Your task to perform on an android device: Clear the cart on newegg. Image 0: 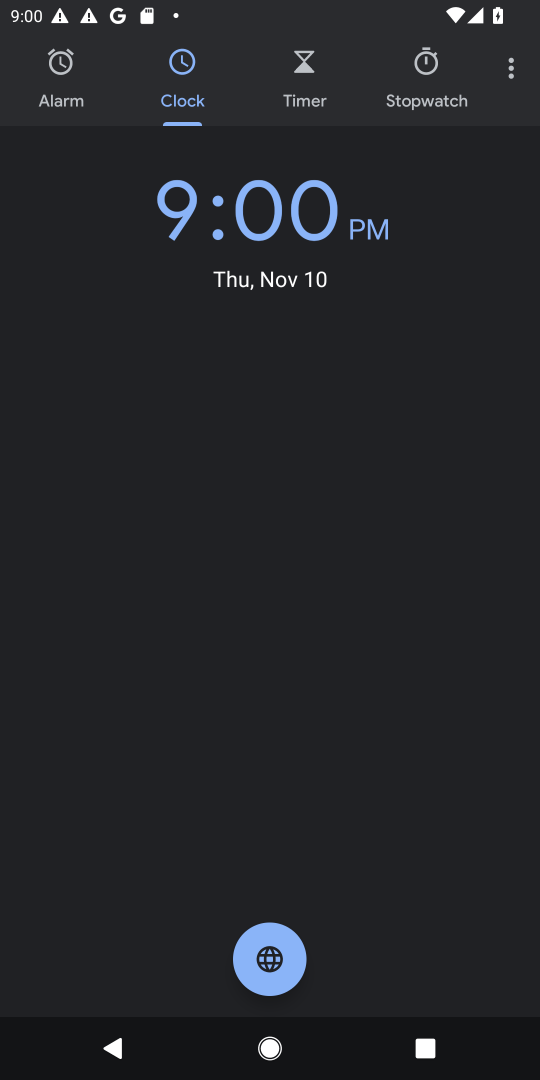
Step 0: press home button
Your task to perform on an android device: Clear the cart on newegg. Image 1: 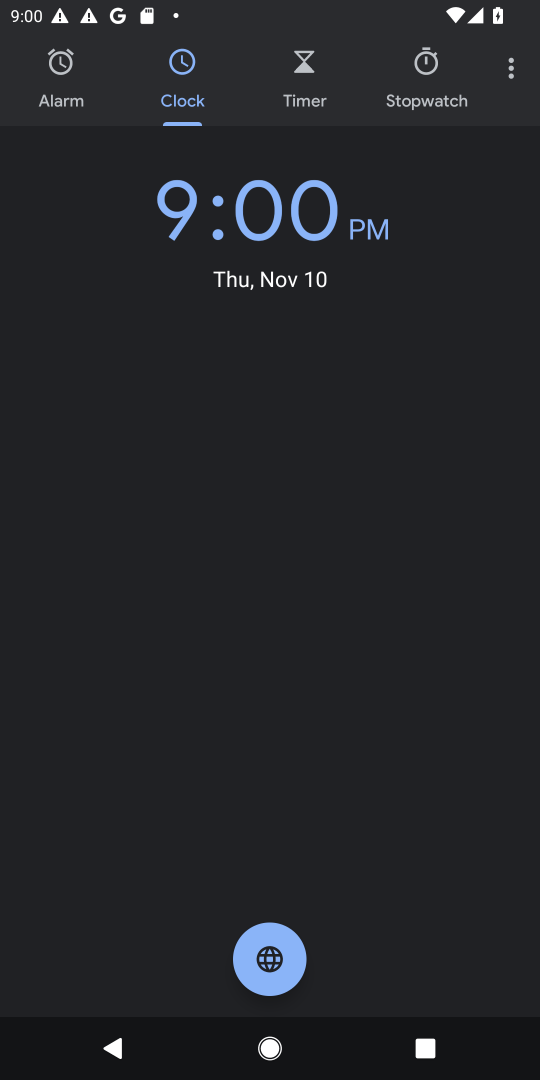
Step 1: press home button
Your task to perform on an android device: Clear the cart on newegg. Image 2: 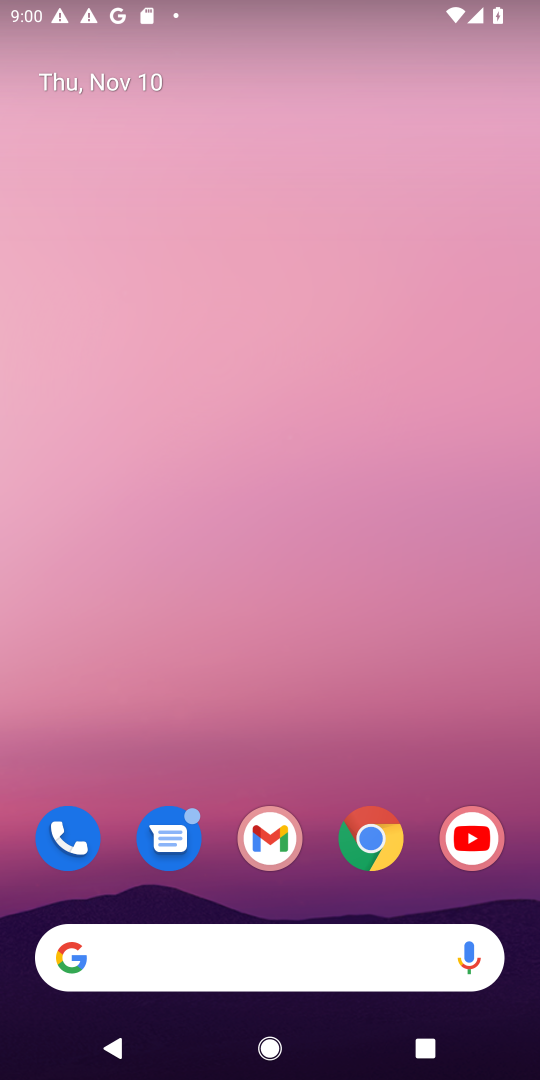
Step 2: drag from (333, 921) to (251, 156)
Your task to perform on an android device: Clear the cart on newegg. Image 3: 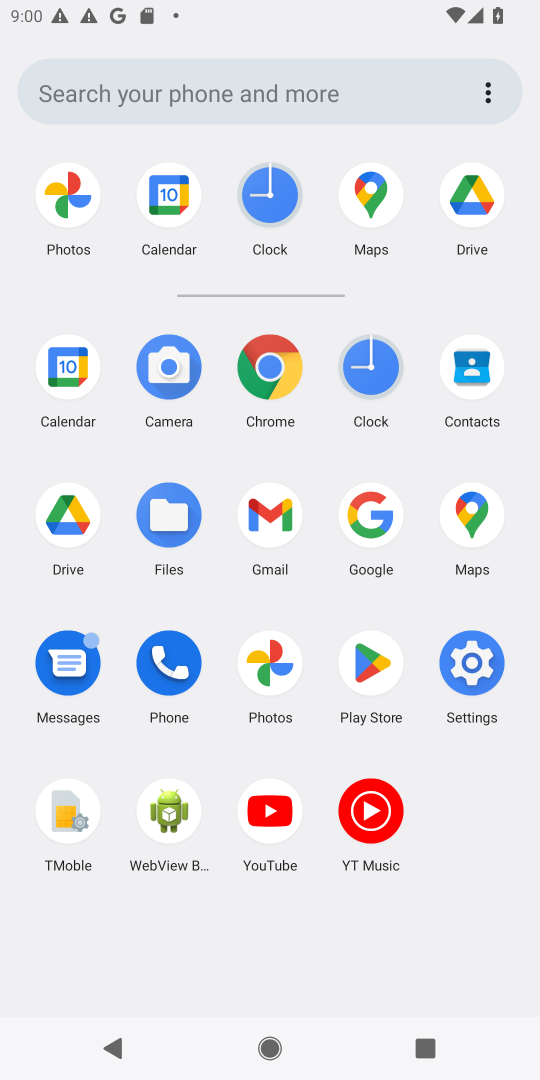
Step 3: click (272, 371)
Your task to perform on an android device: Clear the cart on newegg. Image 4: 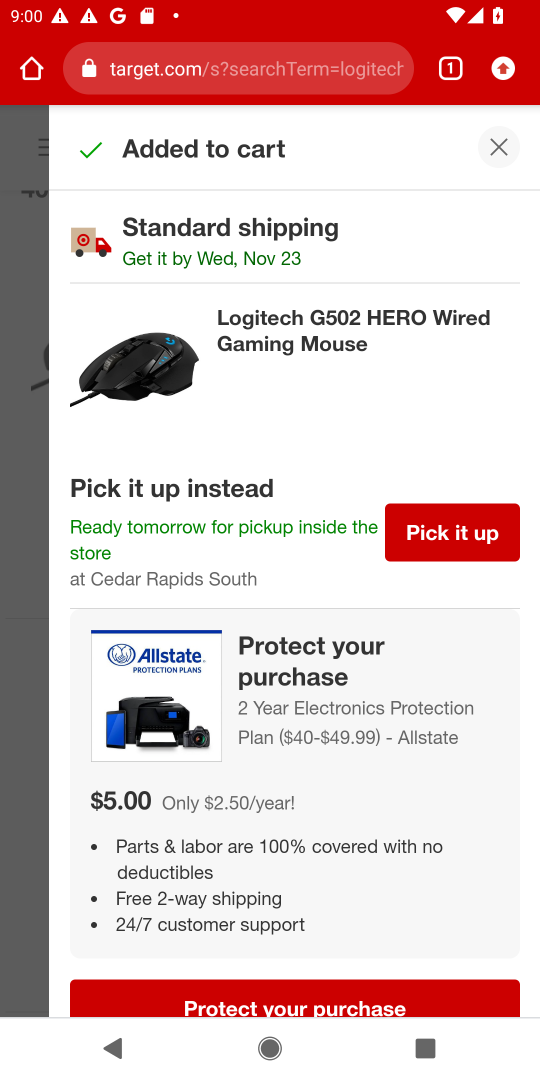
Step 4: click (256, 62)
Your task to perform on an android device: Clear the cart on newegg. Image 5: 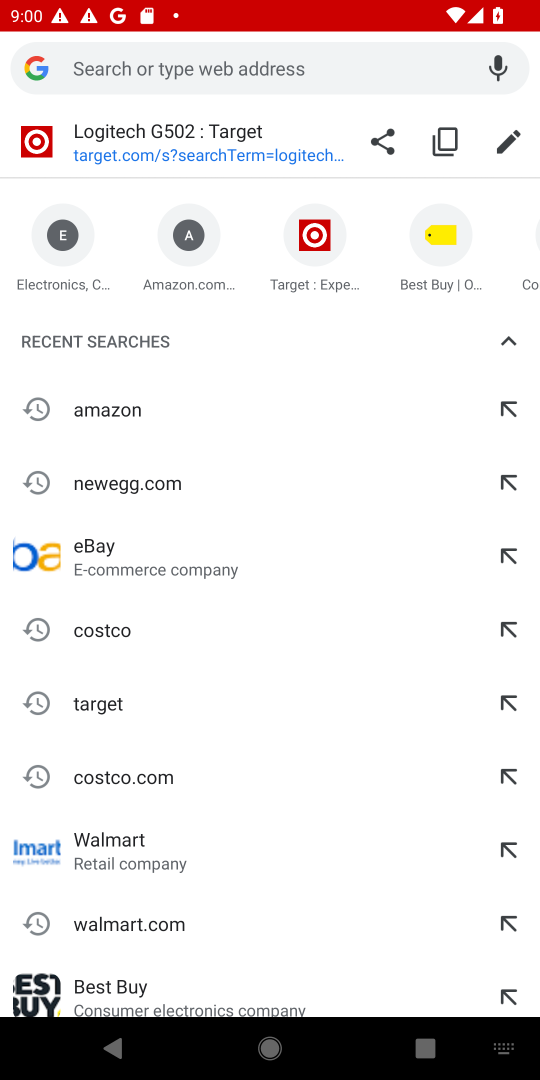
Step 5: type "newegg.com"
Your task to perform on an android device: Clear the cart on newegg. Image 6: 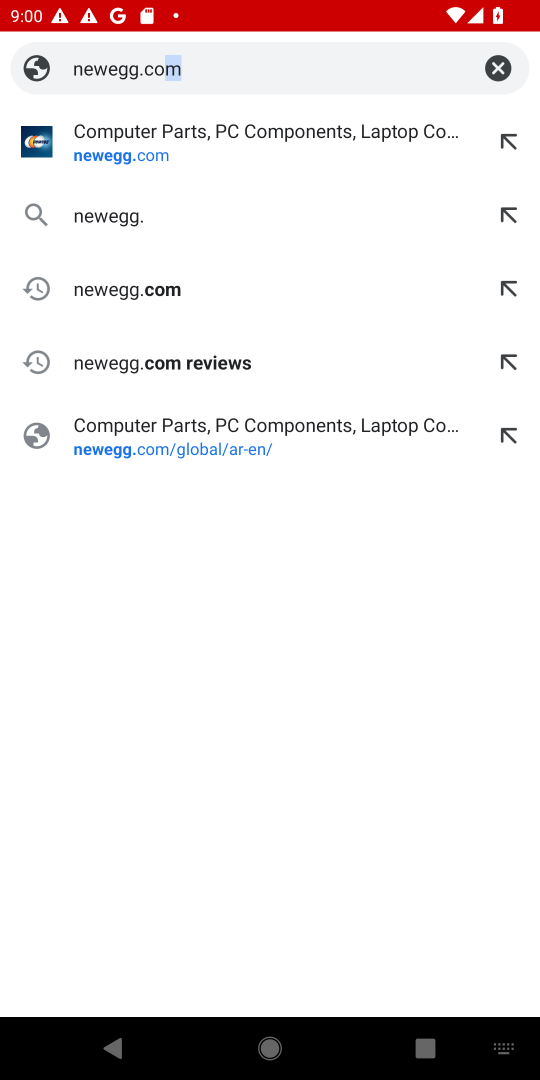
Step 6: press enter
Your task to perform on an android device: Clear the cart on newegg. Image 7: 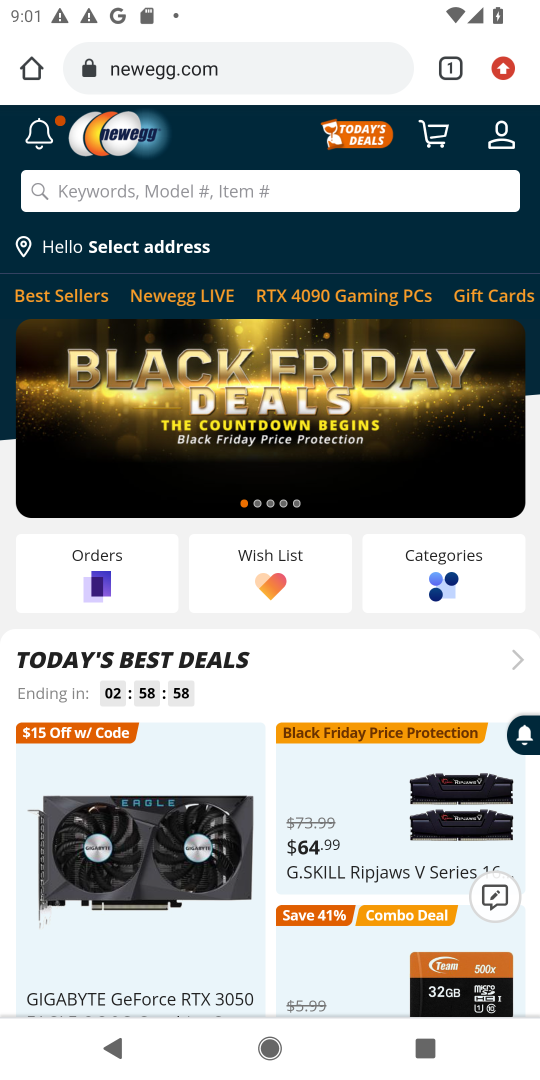
Step 7: click (438, 121)
Your task to perform on an android device: Clear the cart on newegg. Image 8: 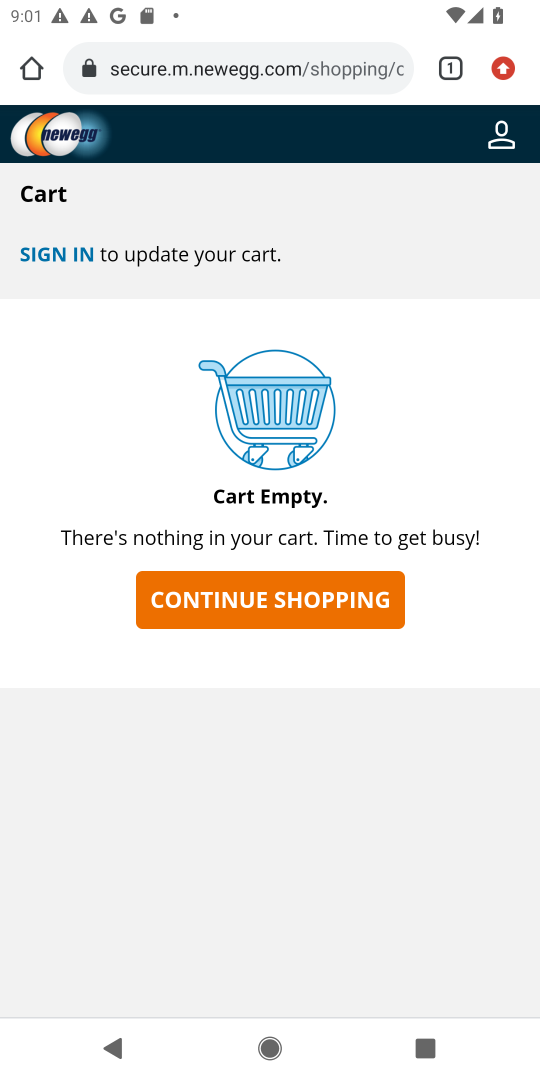
Step 8: task complete